Your task to perform on an android device: turn on priority inbox in the gmail app Image 0: 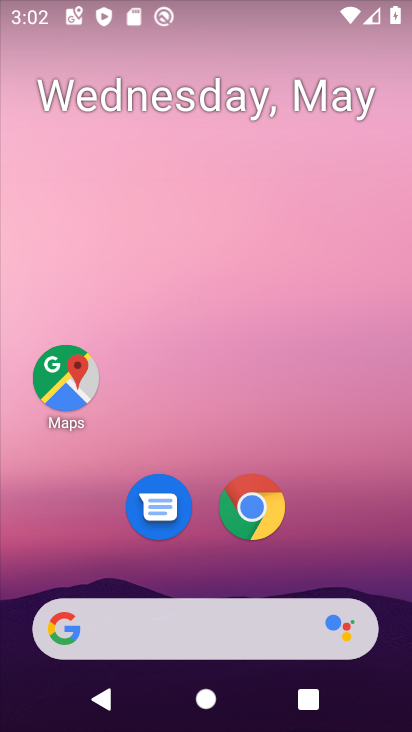
Step 0: drag from (123, 537) to (195, 71)
Your task to perform on an android device: turn on priority inbox in the gmail app Image 1: 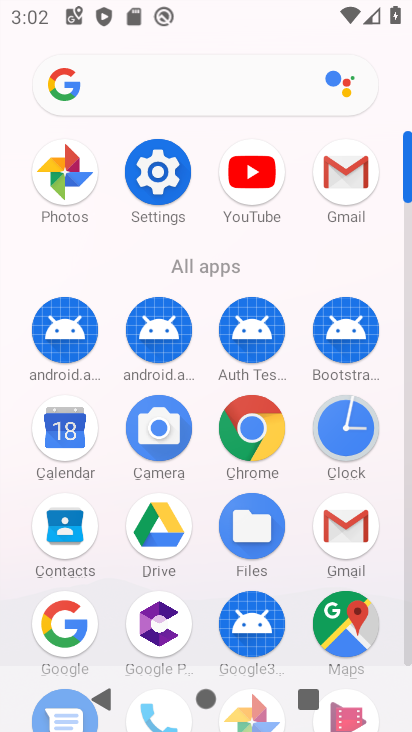
Step 1: click (351, 178)
Your task to perform on an android device: turn on priority inbox in the gmail app Image 2: 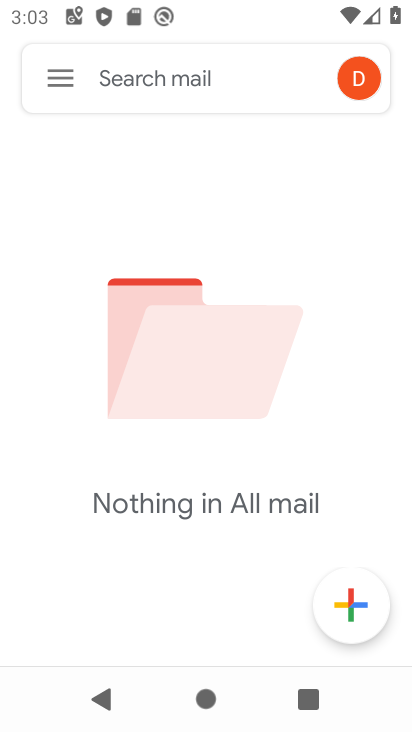
Step 2: click (58, 77)
Your task to perform on an android device: turn on priority inbox in the gmail app Image 3: 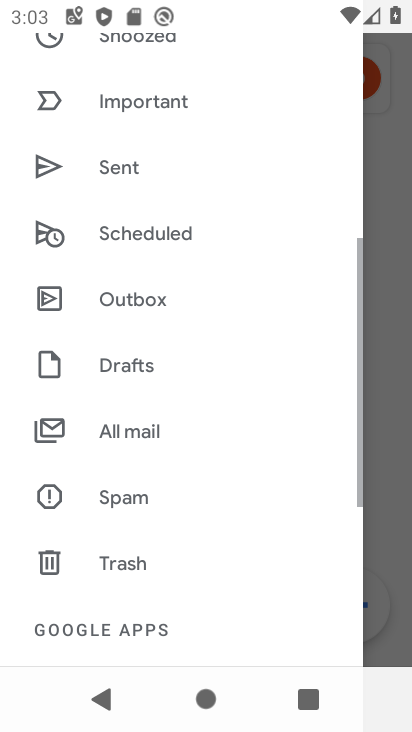
Step 3: drag from (127, 480) to (126, 72)
Your task to perform on an android device: turn on priority inbox in the gmail app Image 4: 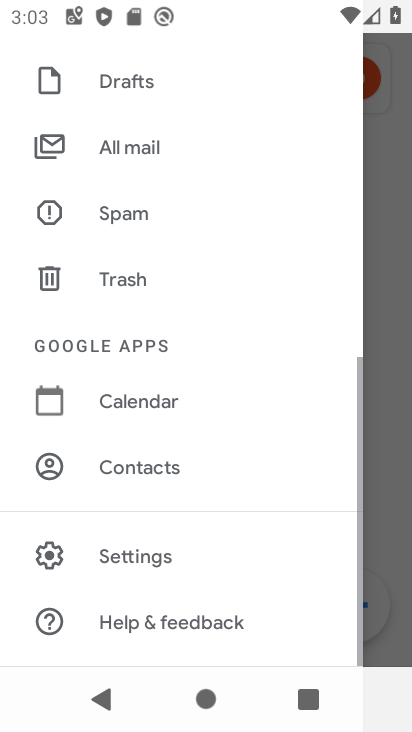
Step 4: click (123, 545)
Your task to perform on an android device: turn on priority inbox in the gmail app Image 5: 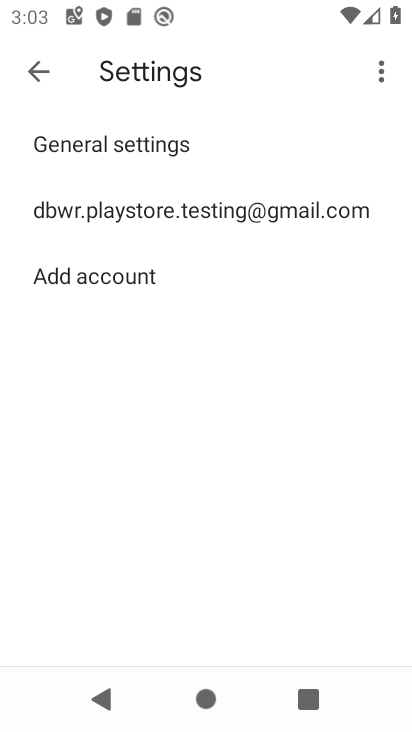
Step 5: click (132, 198)
Your task to perform on an android device: turn on priority inbox in the gmail app Image 6: 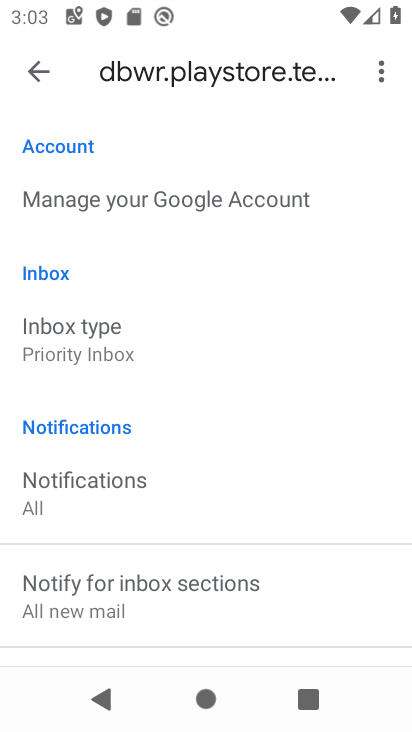
Step 6: click (38, 335)
Your task to perform on an android device: turn on priority inbox in the gmail app Image 7: 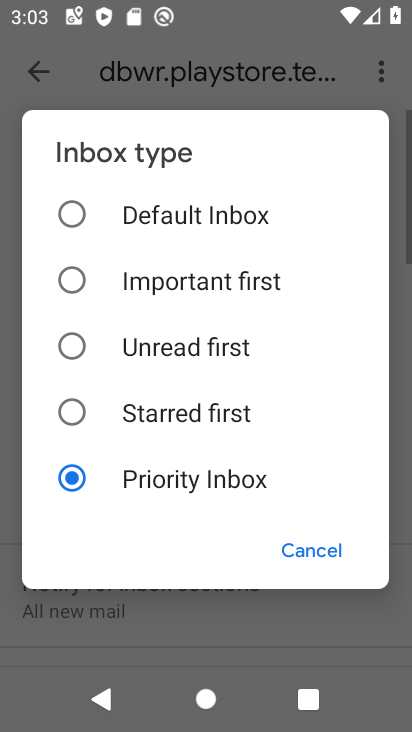
Step 7: task complete